Your task to perform on an android device: toggle priority inbox in the gmail app Image 0: 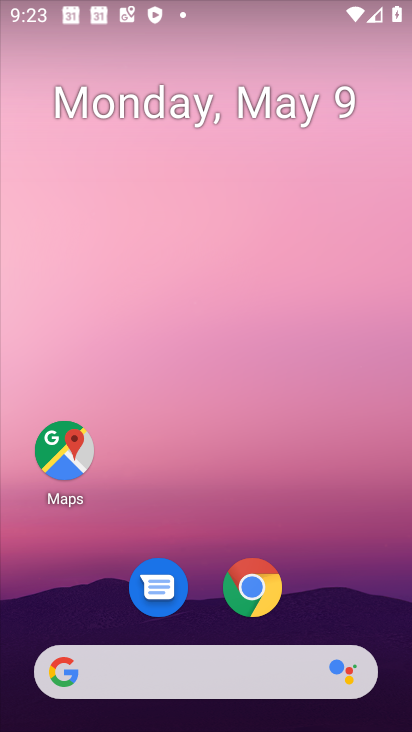
Step 0: drag from (216, 619) to (179, 170)
Your task to perform on an android device: toggle priority inbox in the gmail app Image 1: 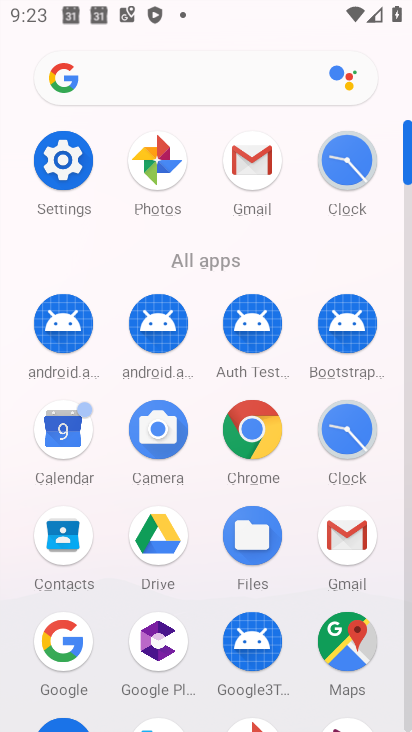
Step 1: click (279, 179)
Your task to perform on an android device: toggle priority inbox in the gmail app Image 2: 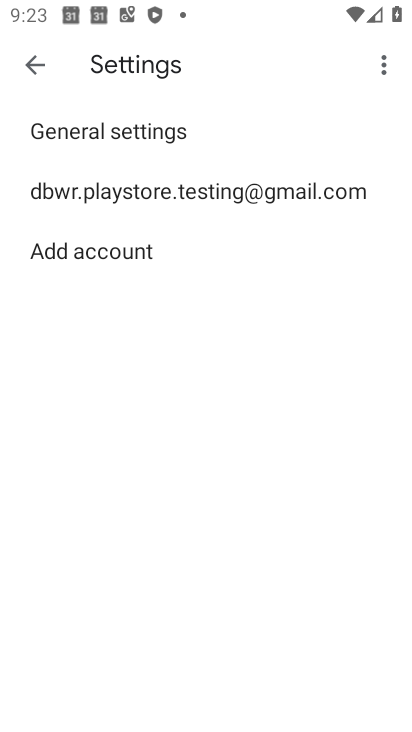
Step 2: click (222, 187)
Your task to perform on an android device: toggle priority inbox in the gmail app Image 3: 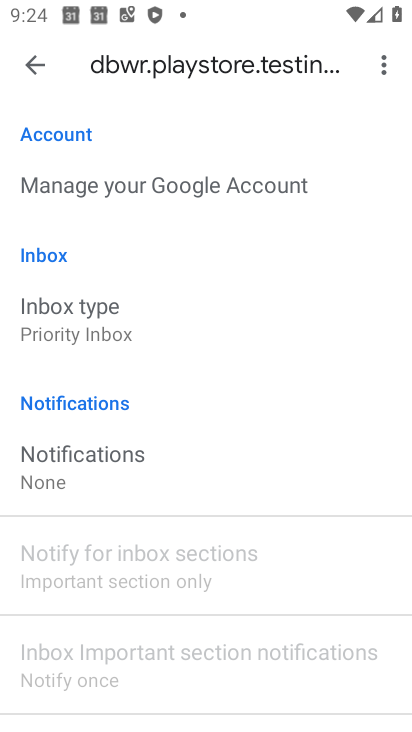
Step 3: click (179, 312)
Your task to perform on an android device: toggle priority inbox in the gmail app Image 4: 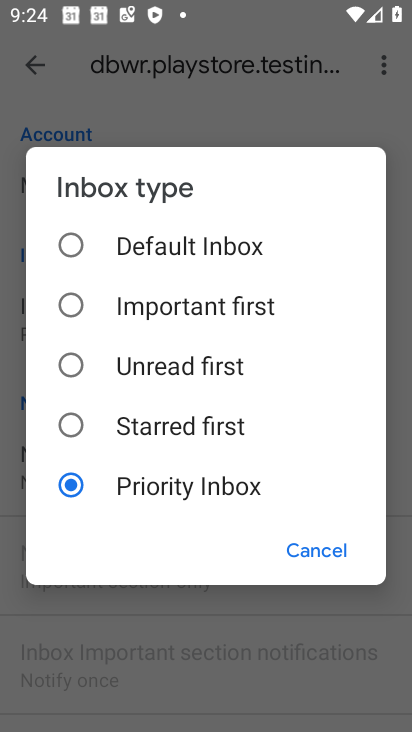
Step 4: click (177, 309)
Your task to perform on an android device: toggle priority inbox in the gmail app Image 5: 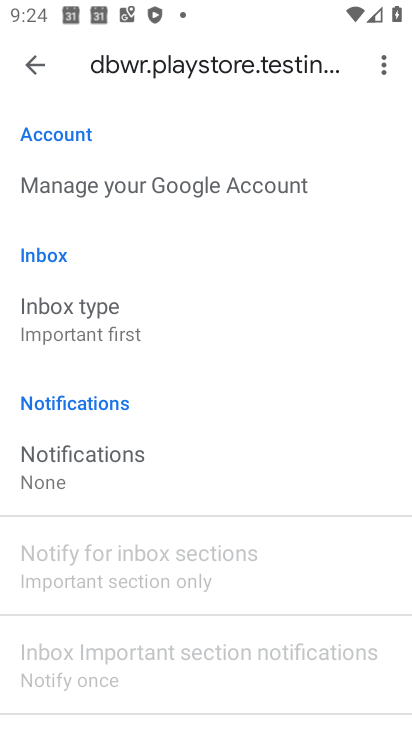
Step 5: task complete